Your task to perform on an android device: What's the weather going to be tomorrow? Image 0: 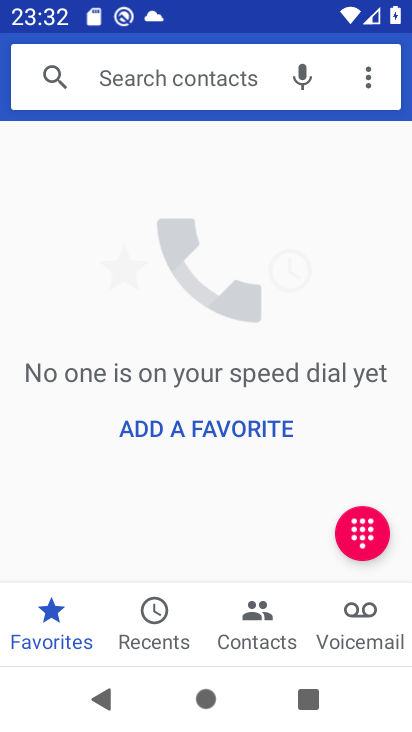
Step 0: press home button
Your task to perform on an android device: What's the weather going to be tomorrow? Image 1: 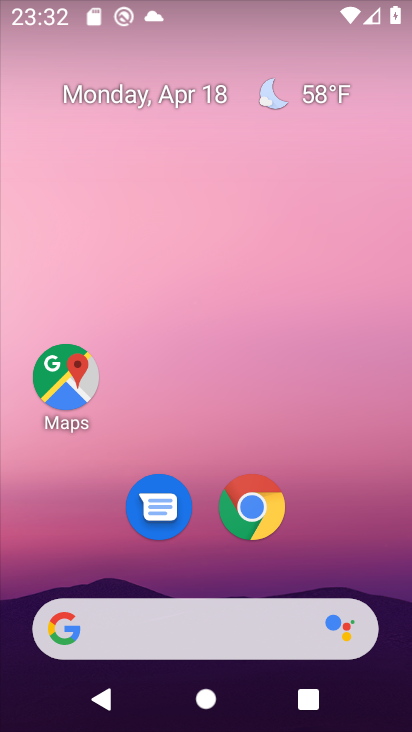
Step 1: click (328, 100)
Your task to perform on an android device: What's the weather going to be tomorrow? Image 2: 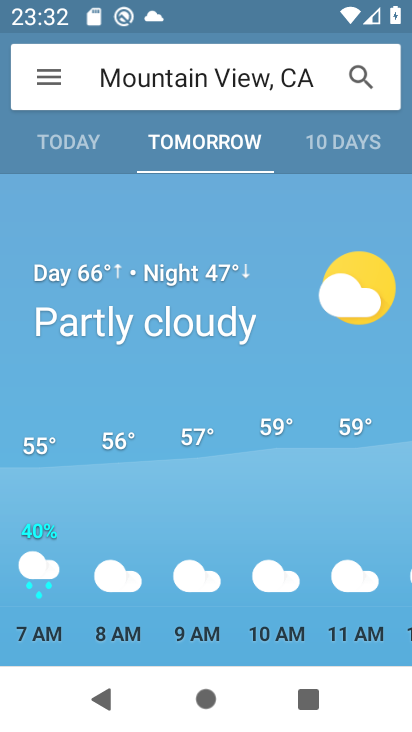
Step 2: task complete